Your task to perform on an android device: add a contact in the contacts app Image 0: 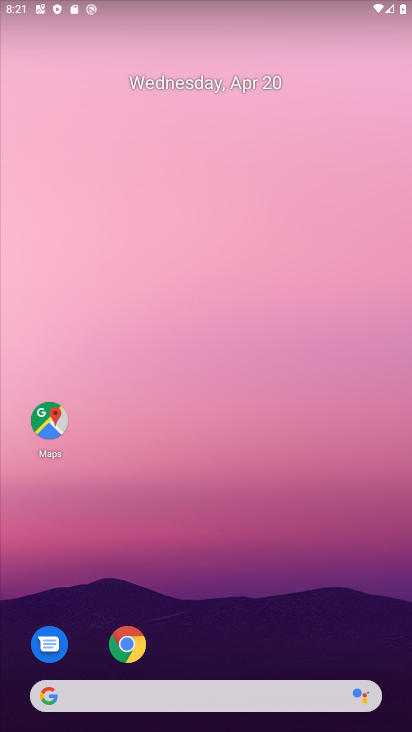
Step 0: drag from (342, 615) to (214, 45)
Your task to perform on an android device: add a contact in the contacts app Image 1: 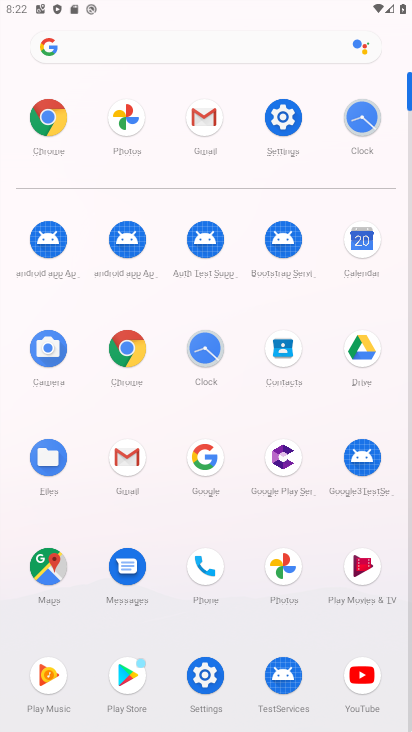
Step 1: click (291, 347)
Your task to perform on an android device: add a contact in the contacts app Image 2: 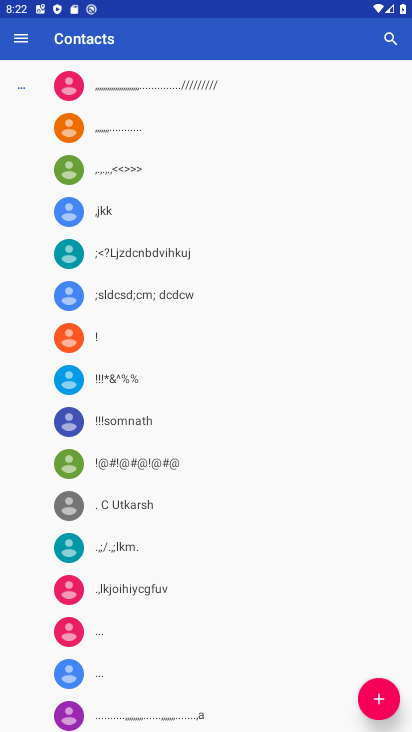
Step 2: click (373, 696)
Your task to perform on an android device: add a contact in the contacts app Image 3: 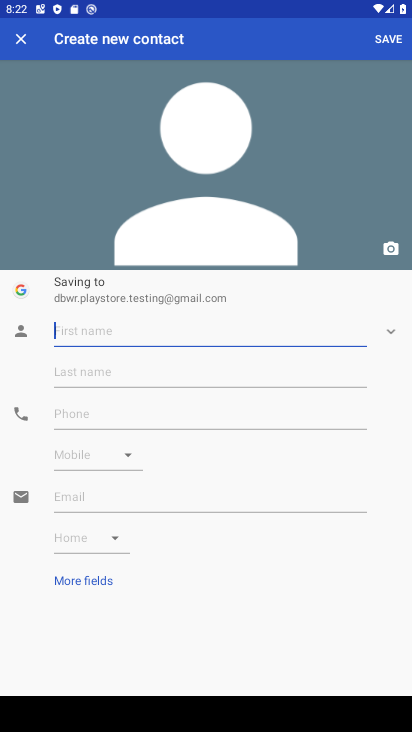
Step 3: type "dred"
Your task to perform on an android device: add a contact in the contacts app Image 4: 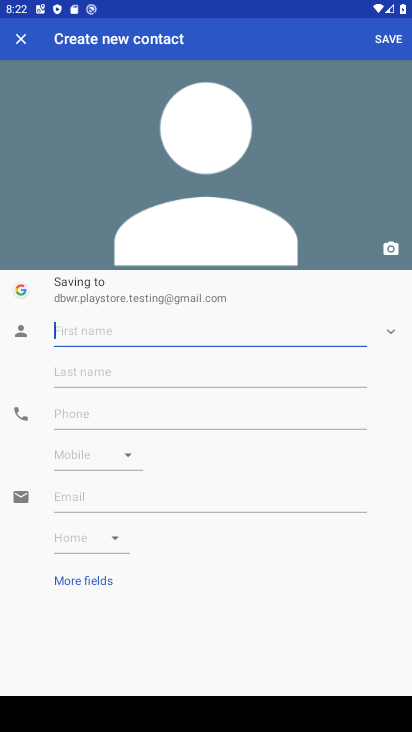
Step 4: click (386, 43)
Your task to perform on an android device: add a contact in the contacts app Image 5: 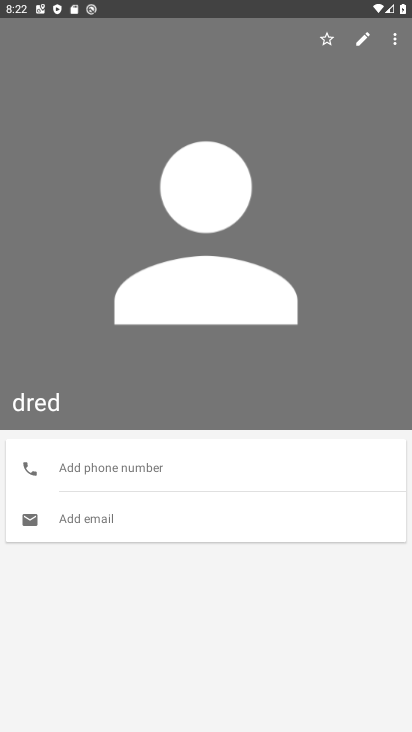
Step 5: task complete